Your task to perform on an android device: change the clock display to show seconds Image 0: 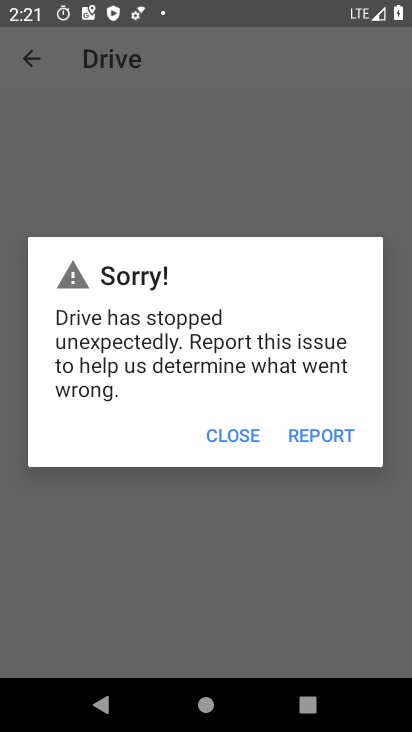
Step 0: press home button
Your task to perform on an android device: change the clock display to show seconds Image 1: 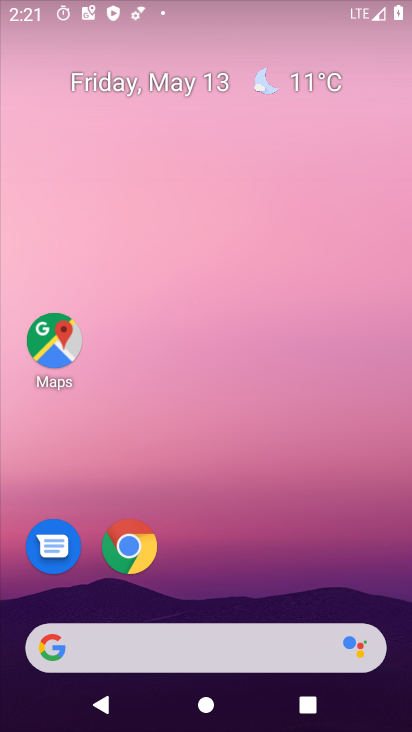
Step 1: drag from (206, 653) to (183, 150)
Your task to perform on an android device: change the clock display to show seconds Image 2: 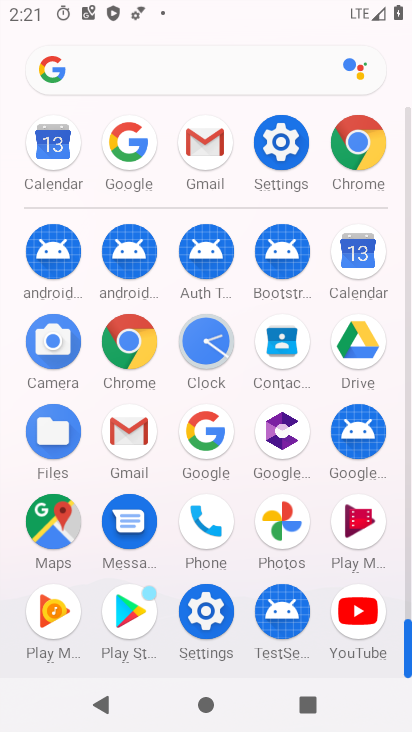
Step 2: click (280, 175)
Your task to perform on an android device: change the clock display to show seconds Image 3: 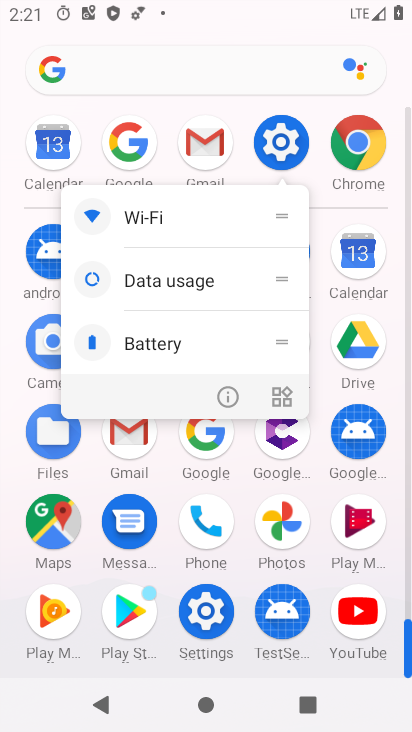
Step 3: click (282, 171)
Your task to perform on an android device: change the clock display to show seconds Image 4: 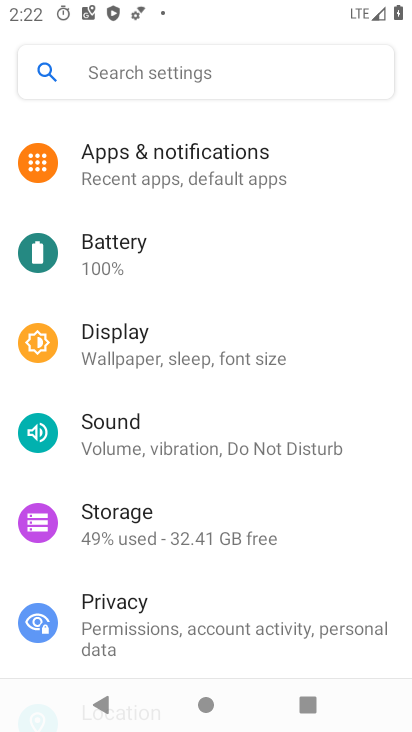
Step 4: drag from (211, 576) to (186, 350)
Your task to perform on an android device: change the clock display to show seconds Image 5: 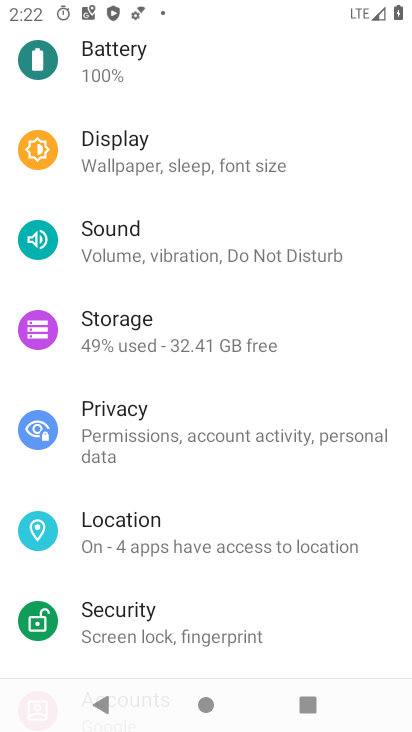
Step 5: drag from (241, 345) to (204, 575)
Your task to perform on an android device: change the clock display to show seconds Image 6: 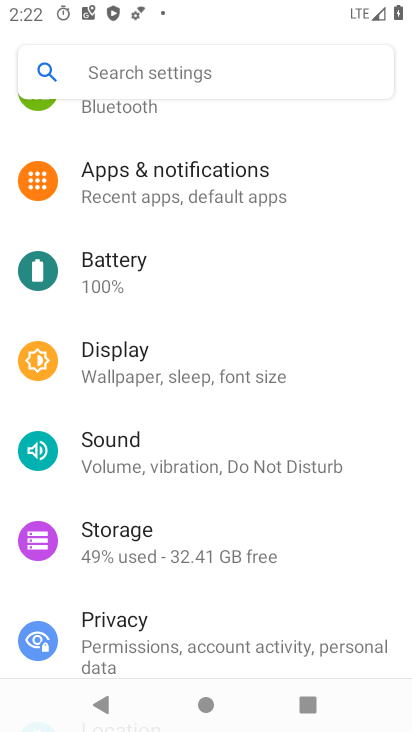
Step 6: drag from (183, 315) to (153, 450)
Your task to perform on an android device: change the clock display to show seconds Image 7: 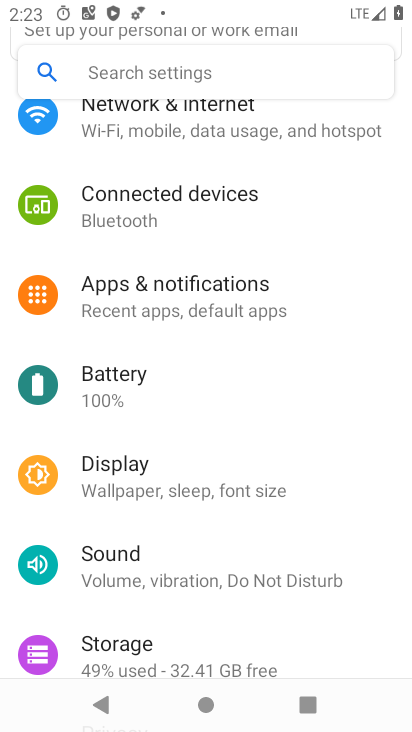
Step 7: press home button
Your task to perform on an android device: change the clock display to show seconds Image 8: 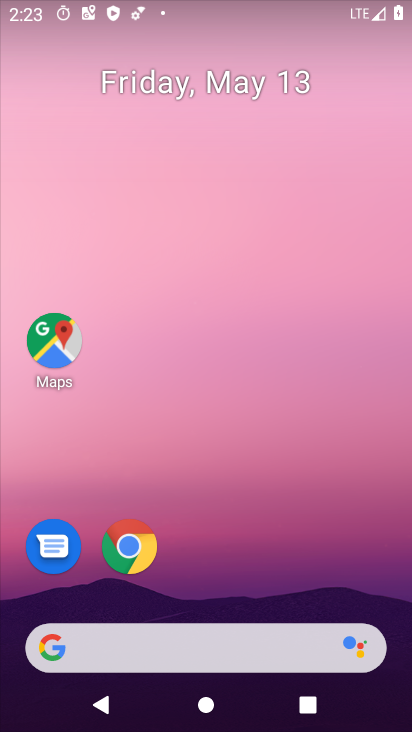
Step 8: drag from (225, 592) to (206, 187)
Your task to perform on an android device: change the clock display to show seconds Image 9: 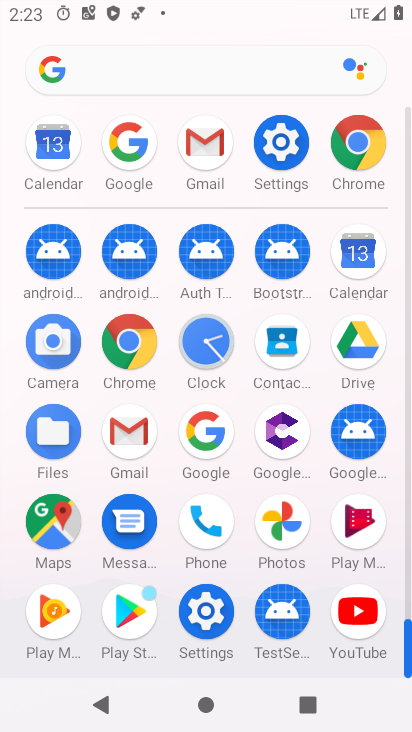
Step 9: click (212, 355)
Your task to perform on an android device: change the clock display to show seconds Image 10: 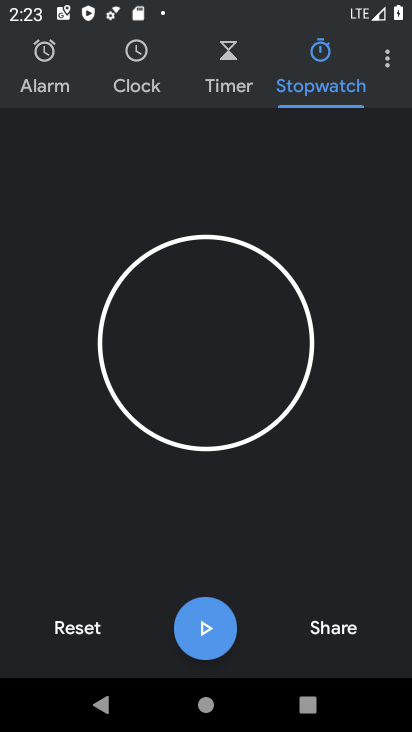
Step 10: click (386, 61)
Your task to perform on an android device: change the clock display to show seconds Image 11: 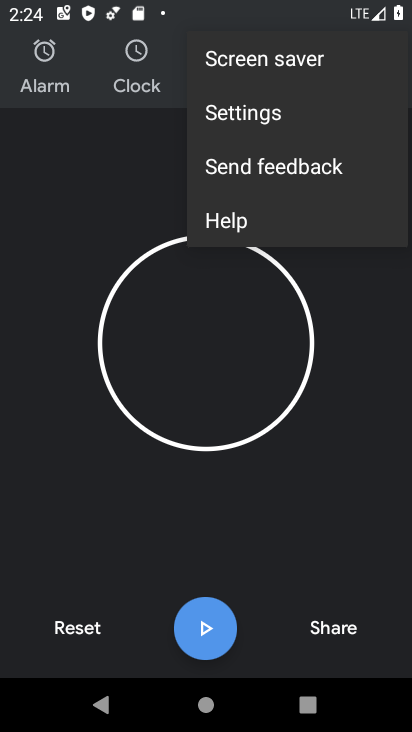
Step 11: click (304, 125)
Your task to perform on an android device: change the clock display to show seconds Image 12: 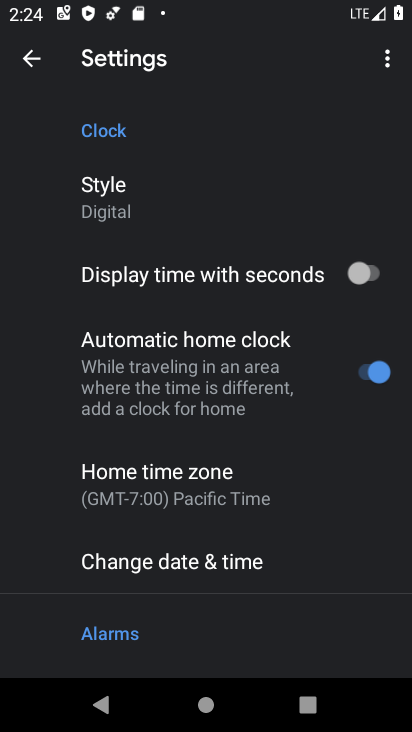
Step 12: click (275, 278)
Your task to perform on an android device: change the clock display to show seconds Image 13: 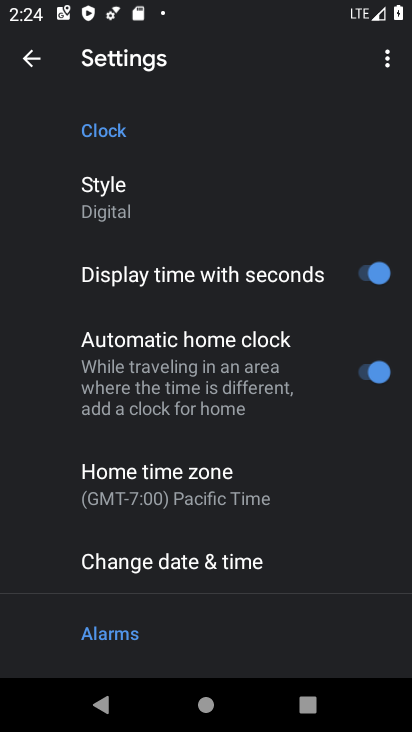
Step 13: task complete